Your task to perform on an android device: Turn off the flashlight Image 0: 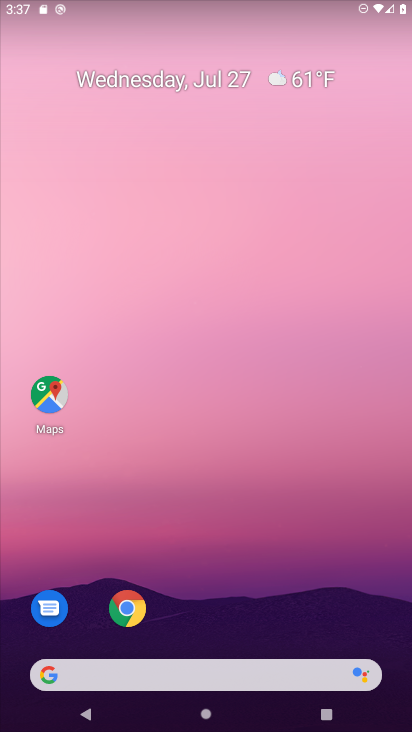
Step 0: drag from (228, 725) to (225, 121)
Your task to perform on an android device: Turn off the flashlight Image 1: 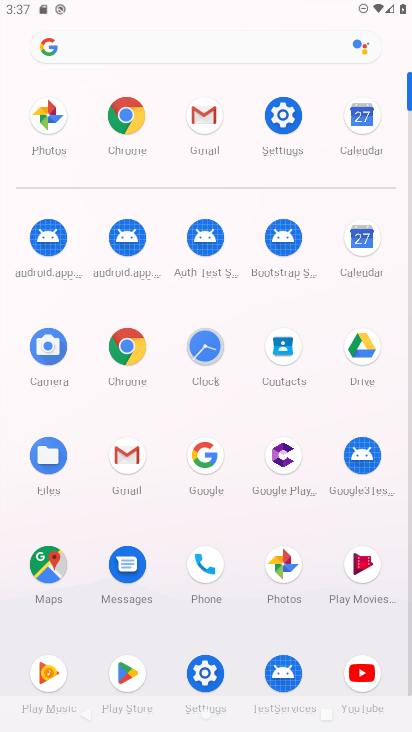
Step 1: click (284, 118)
Your task to perform on an android device: Turn off the flashlight Image 2: 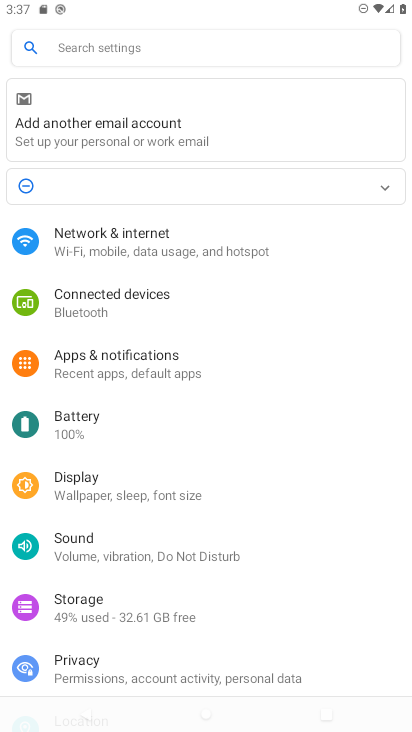
Step 2: task complete